Your task to perform on an android device: change the clock display to show seconds Image 0: 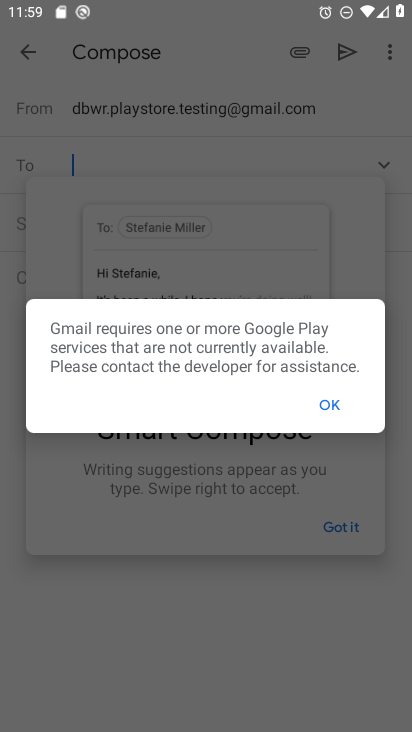
Step 0: press home button
Your task to perform on an android device: change the clock display to show seconds Image 1: 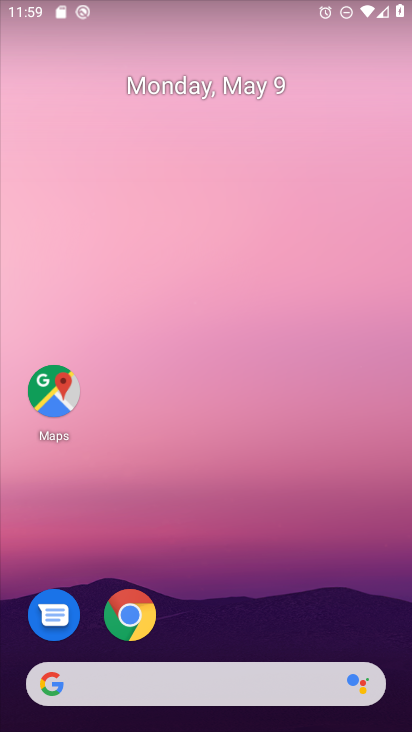
Step 1: drag from (229, 710) to (325, 137)
Your task to perform on an android device: change the clock display to show seconds Image 2: 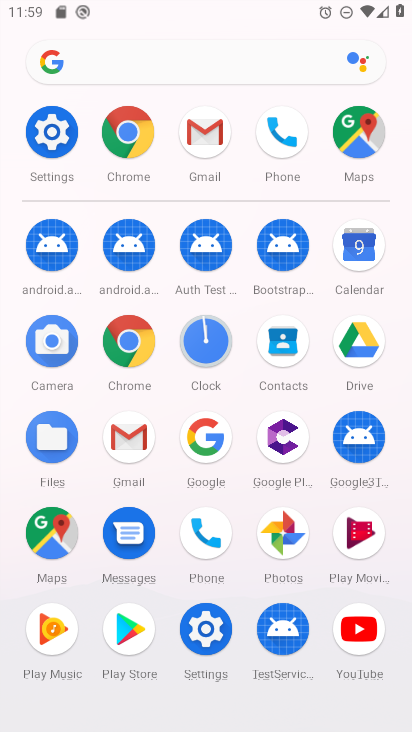
Step 2: click (211, 339)
Your task to perform on an android device: change the clock display to show seconds Image 3: 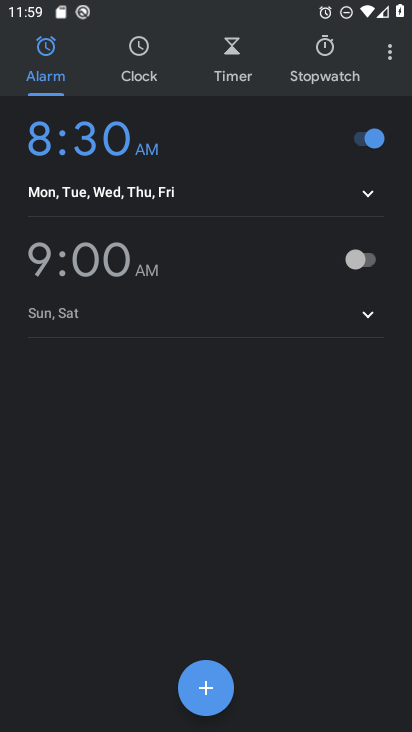
Step 3: click (392, 65)
Your task to perform on an android device: change the clock display to show seconds Image 4: 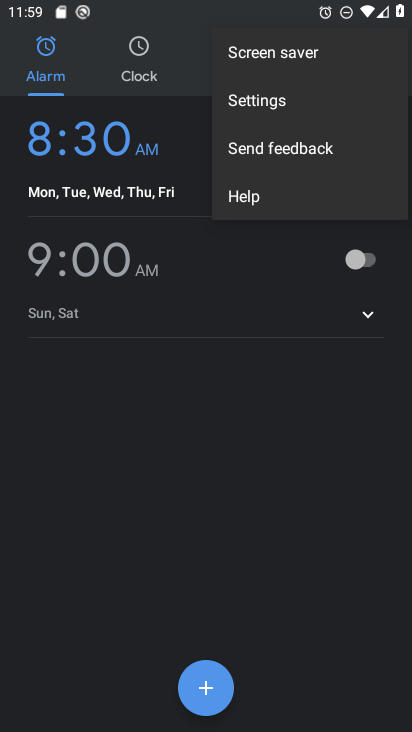
Step 4: click (281, 113)
Your task to perform on an android device: change the clock display to show seconds Image 5: 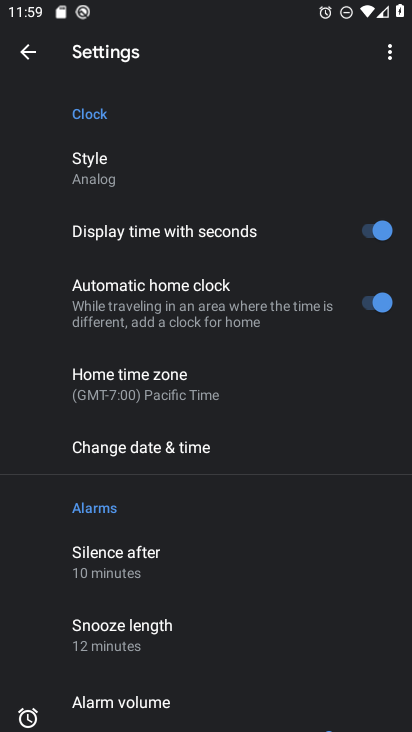
Step 5: click (366, 227)
Your task to perform on an android device: change the clock display to show seconds Image 6: 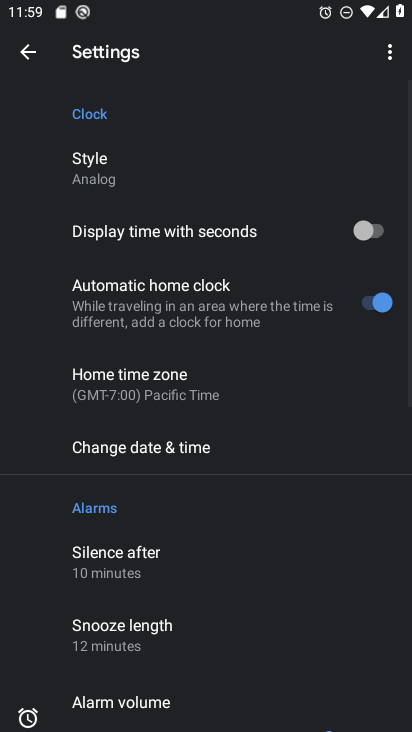
Step 6: task complete